Your task to perform on an android device: Clear all items from cart on walmart.com. Search for "logitech g933" on walmart.com, select the first entry, and add it to the cart. Image 0: 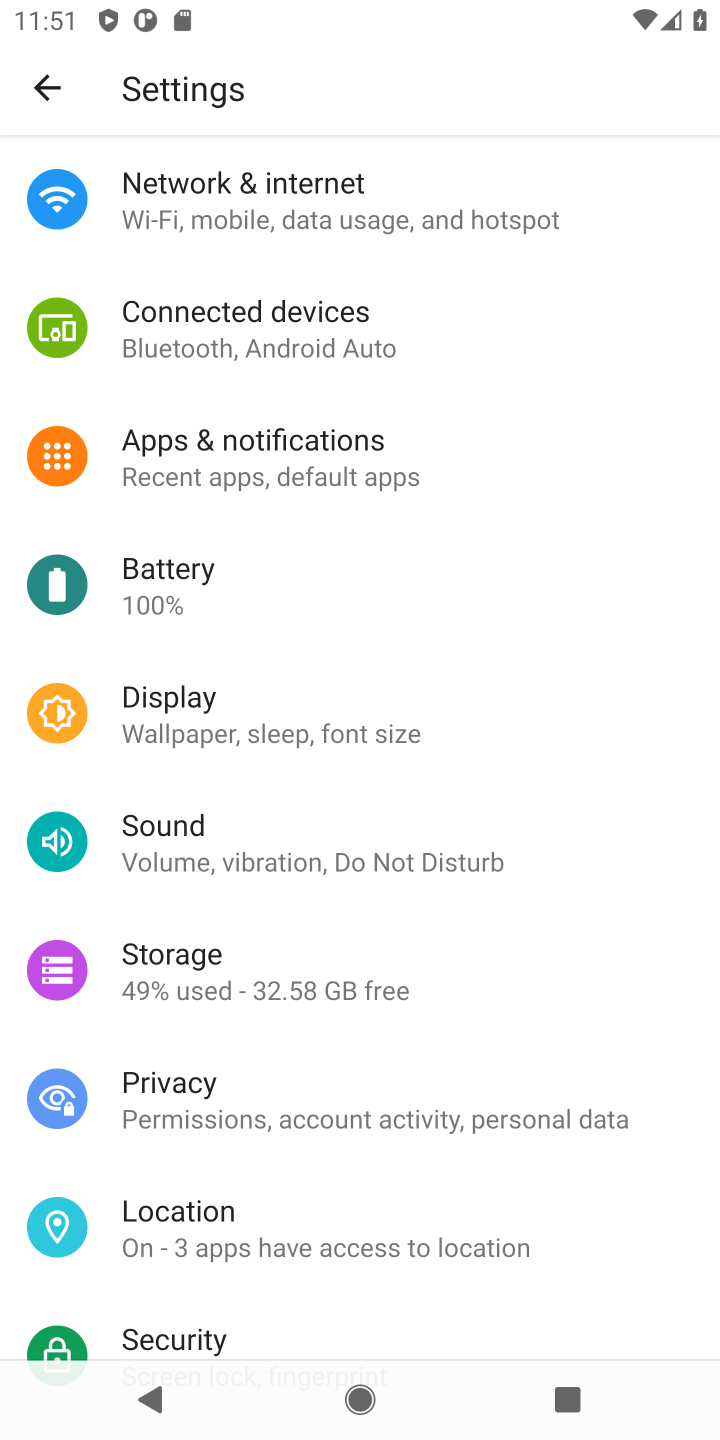
Step 0: press home button
Your task to perform on an android device: Clear all items from cart on walmart.com. Search for "logitech g933" on walmart.com, select the first entry, and add it to the cart. Image 1: 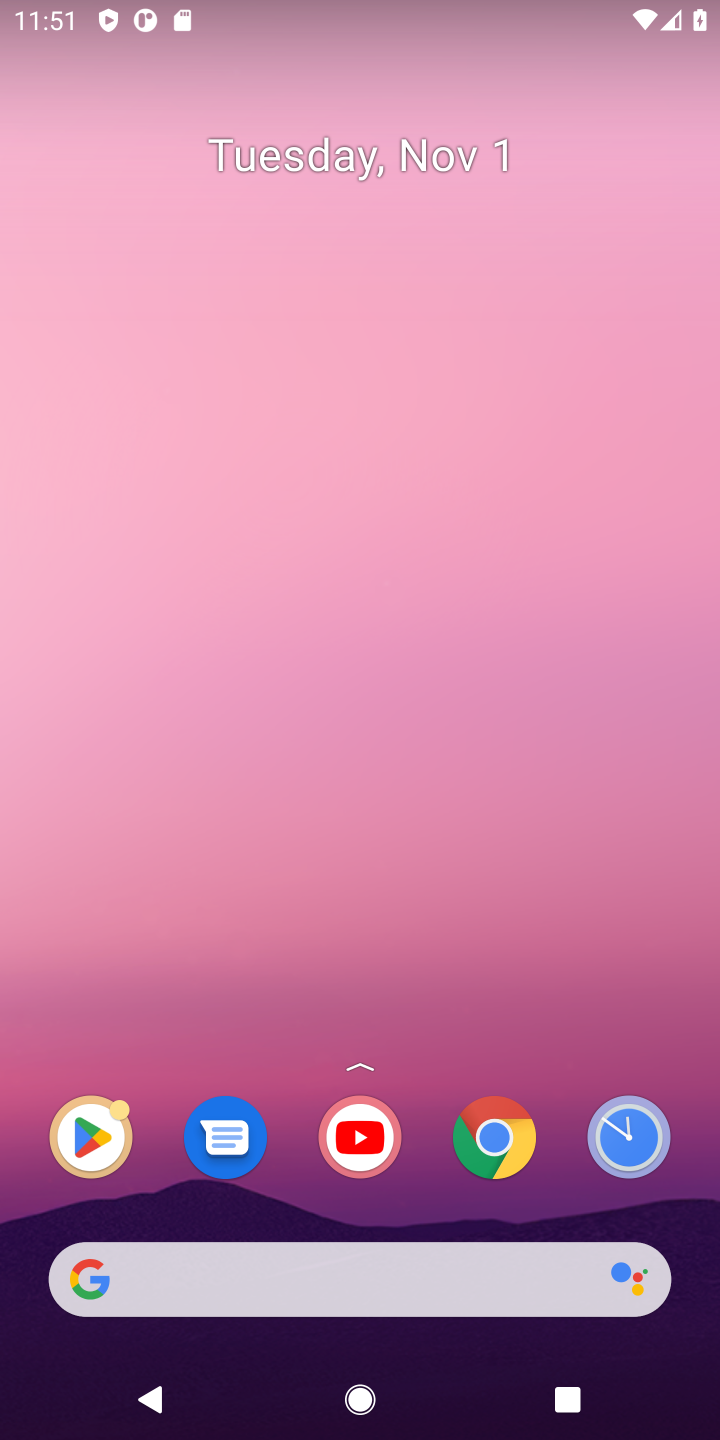
Step 1: click (340, 1227)
Your task to perform on an android device: Clear all items from cart on walmart.com. Search for "logitech g933" on walmart.com, select the first entry, and add it to the cart. Image 2: 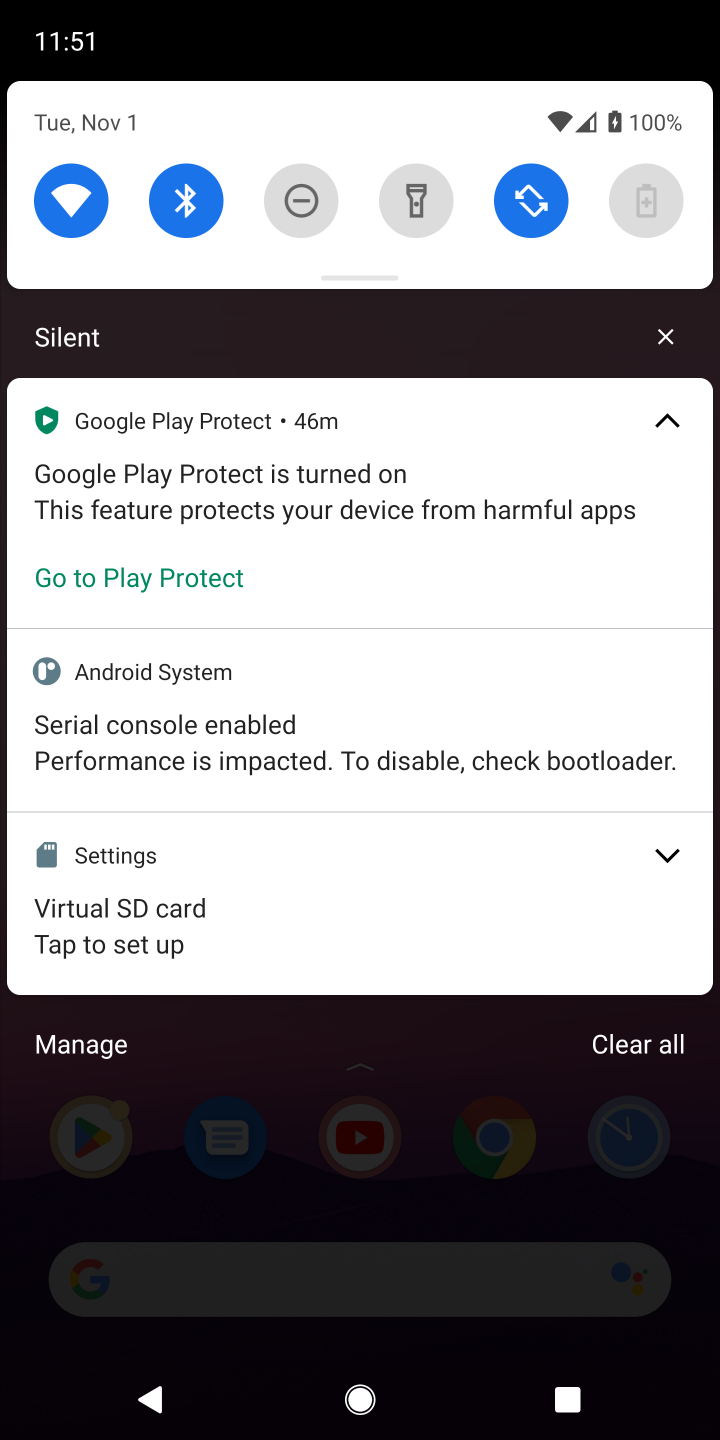
Step 2: click (669, 350)
Your task to perform on an android device: Clear all items from cart on walmart.com. Search for "logitech g933" on walmart.com, select the first entry, and add it to the cart. Image 3: 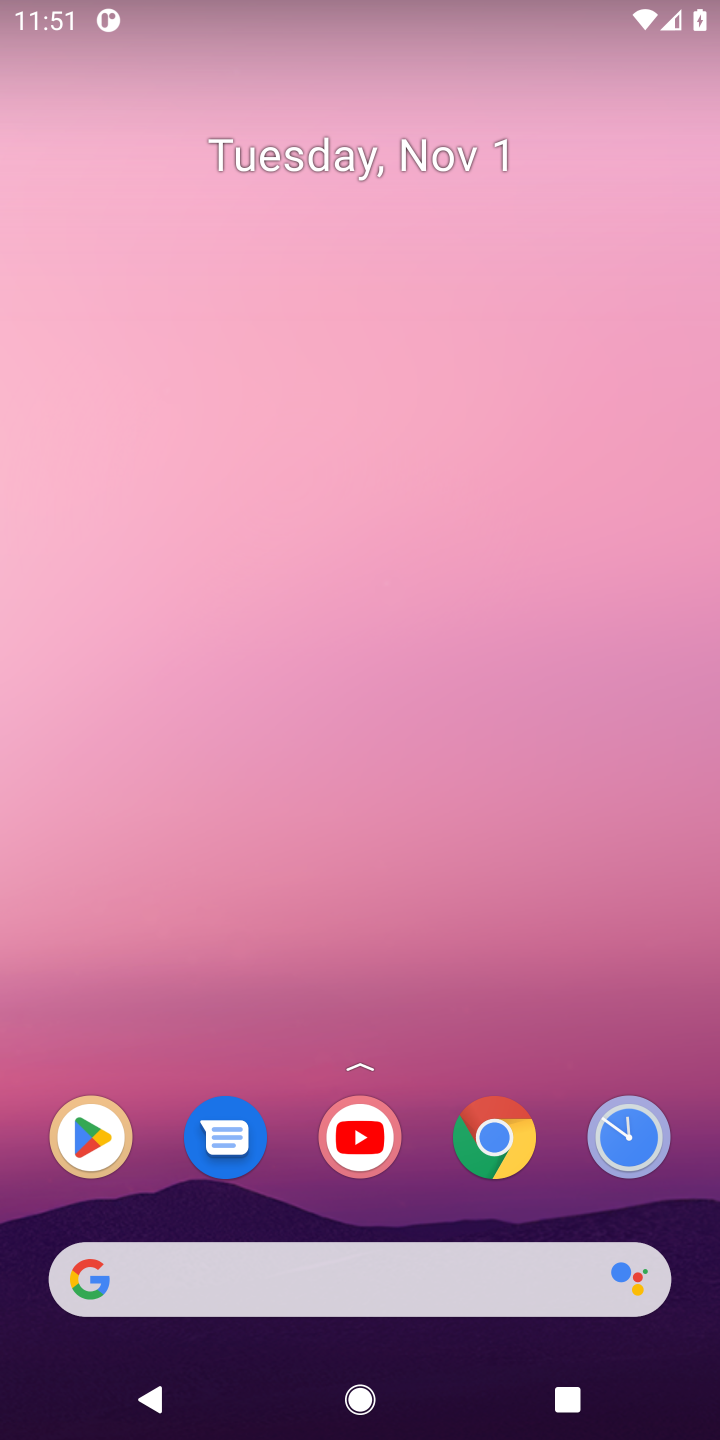
Step 3: click (342, 1263)
Your task to perform on an android device: Clear all items from cart on walmart.com. Search for "logitech g933" on walmart.com, select the first entry, and add it to the cart. Image 4: 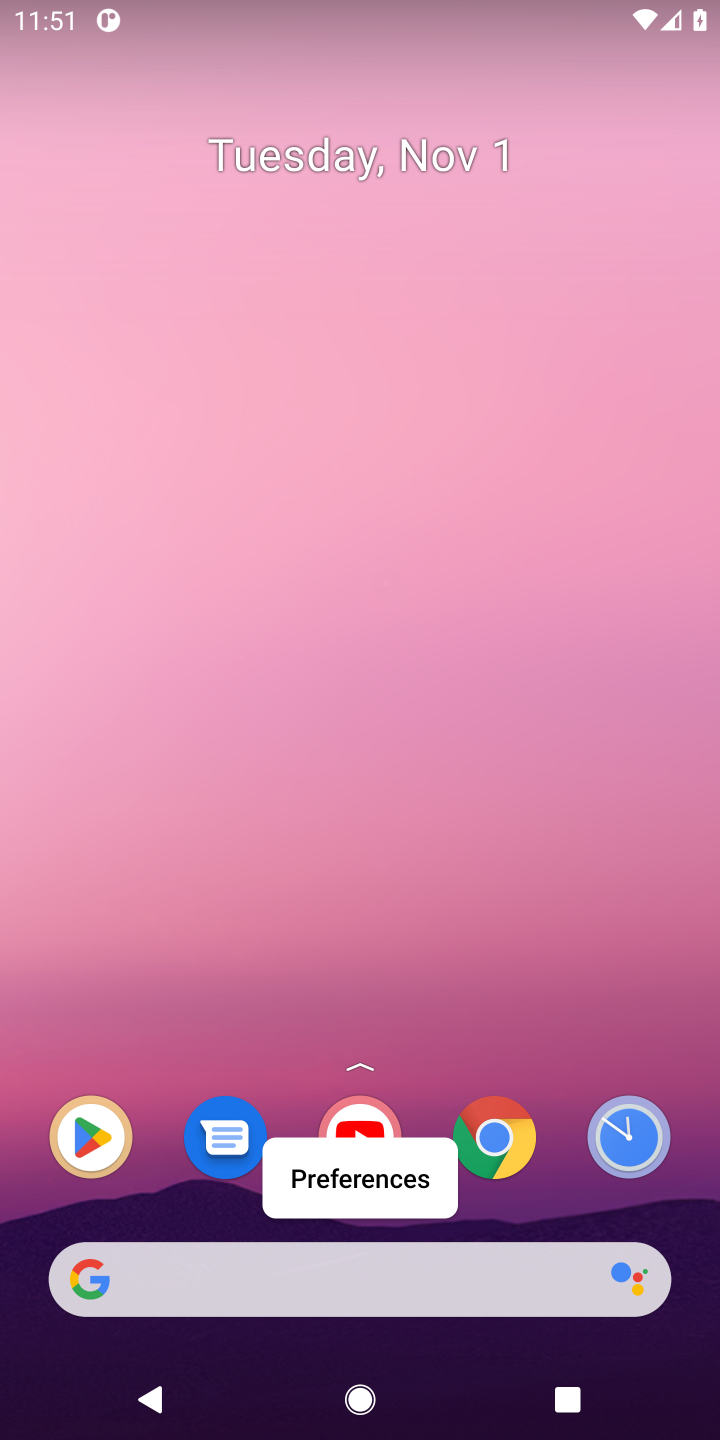
Step 4: click (342, 1263)
Your task to perform on an android device: Clear all items from cart on walmart.com. Search for "logitech g933" on walmart.com, select the first entry, and add it to the cart. Image 5: 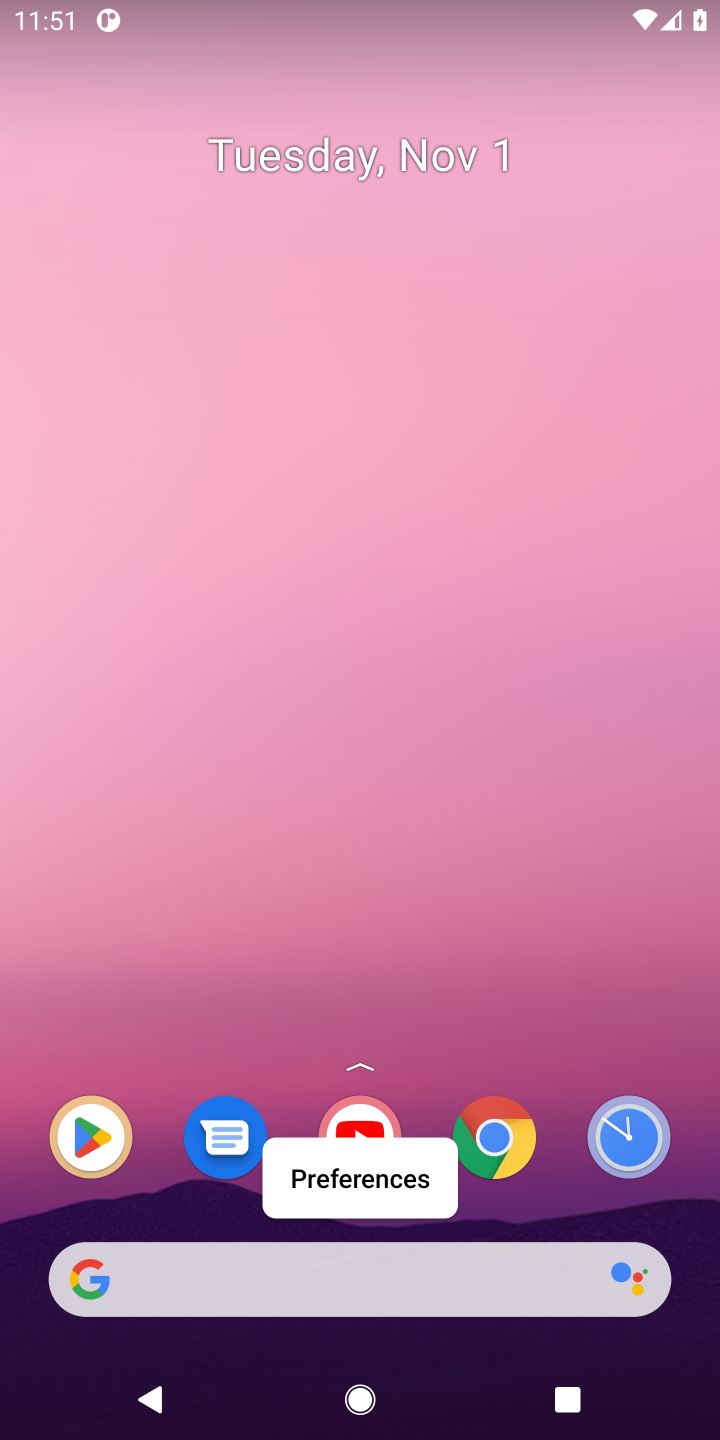
Step 5: click (342, 1263)
Your task to perform on an android device: Clear all items from cart on walmart.com. Search for "logitech g933" on walmart.com, select the first entry, and add it to the cart. Image 6: 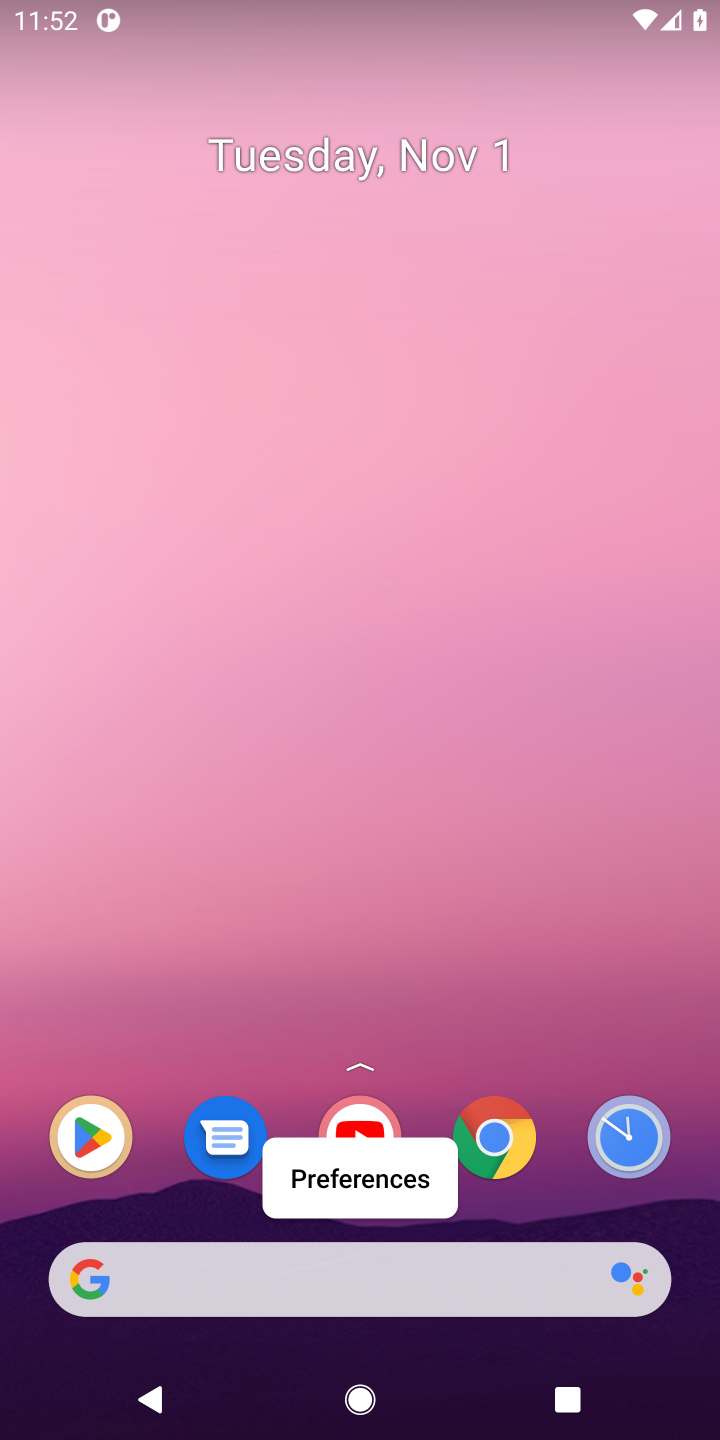
Step 6: click (347, 1286)
Your task to perform on an android device: Clear all items from cart on walmart.com. Search for "logitech g933" on walmart.com, select the first entry, and add it to the cart. Image 7: 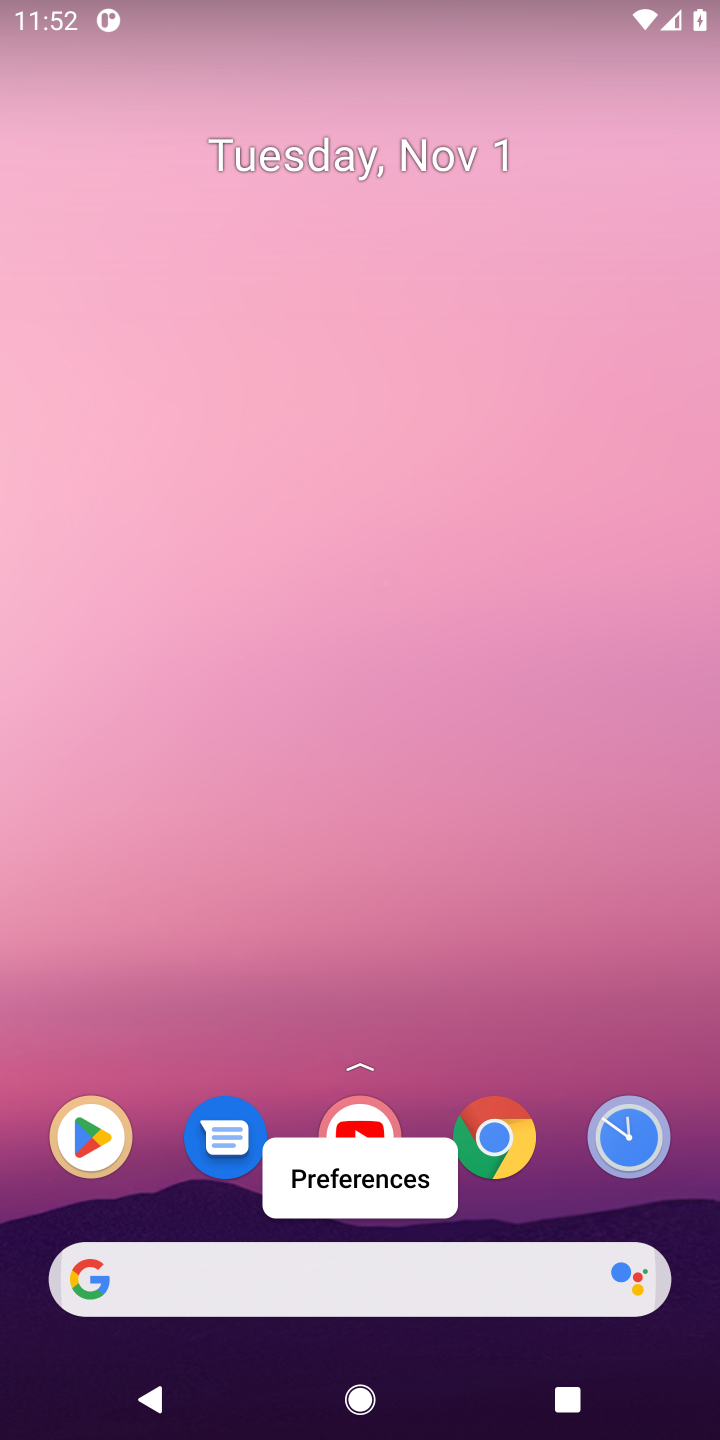
Step 7: click (341, 1296)
Your task to perform on an android device: Clear all items from cart on walmart.com. Search for "logitech g933" on walmart.com, select the first entry, and add it to the cart. Image 8: 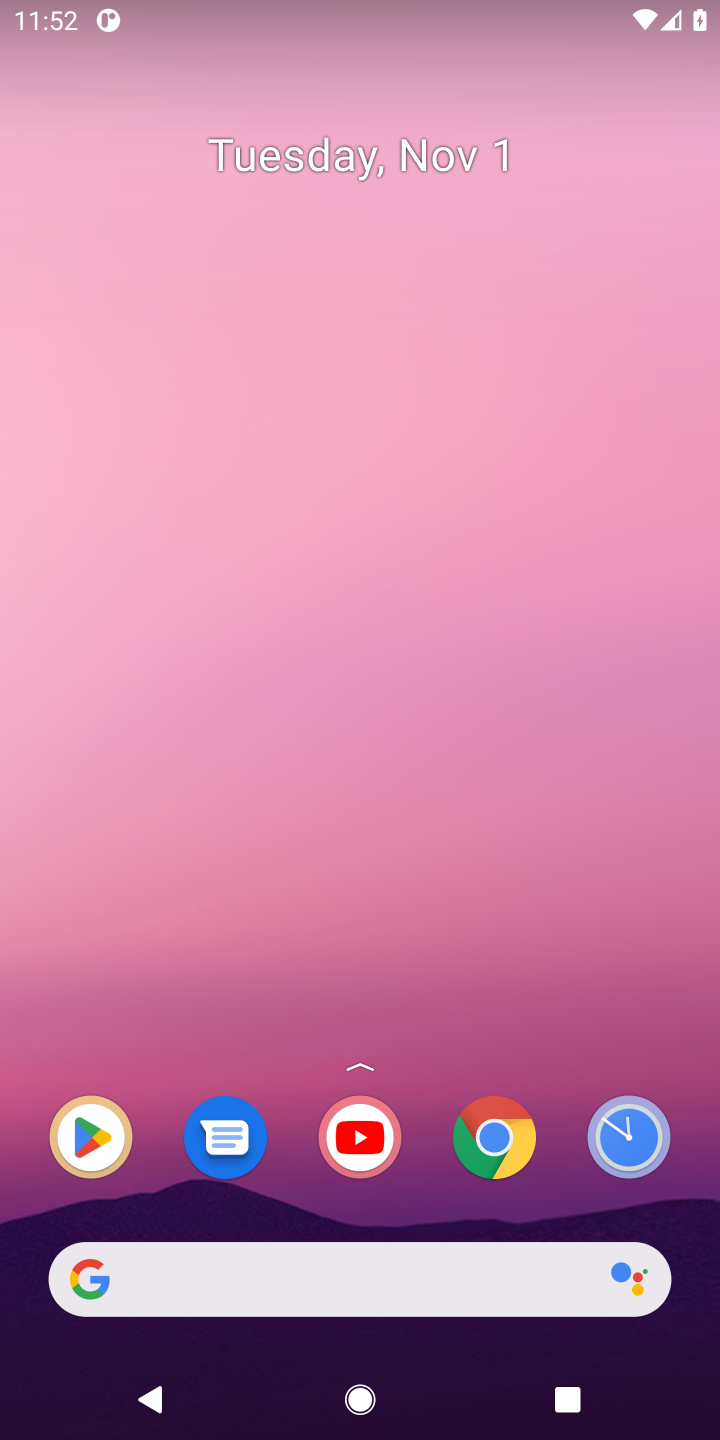
Step 8: click (328, 1293)
Your task to perform on an android device: Clear all items from cart on walmart.com. Search for "logitech g933" on walmart.com, select the first entry, and add it to the cart. Image 9: 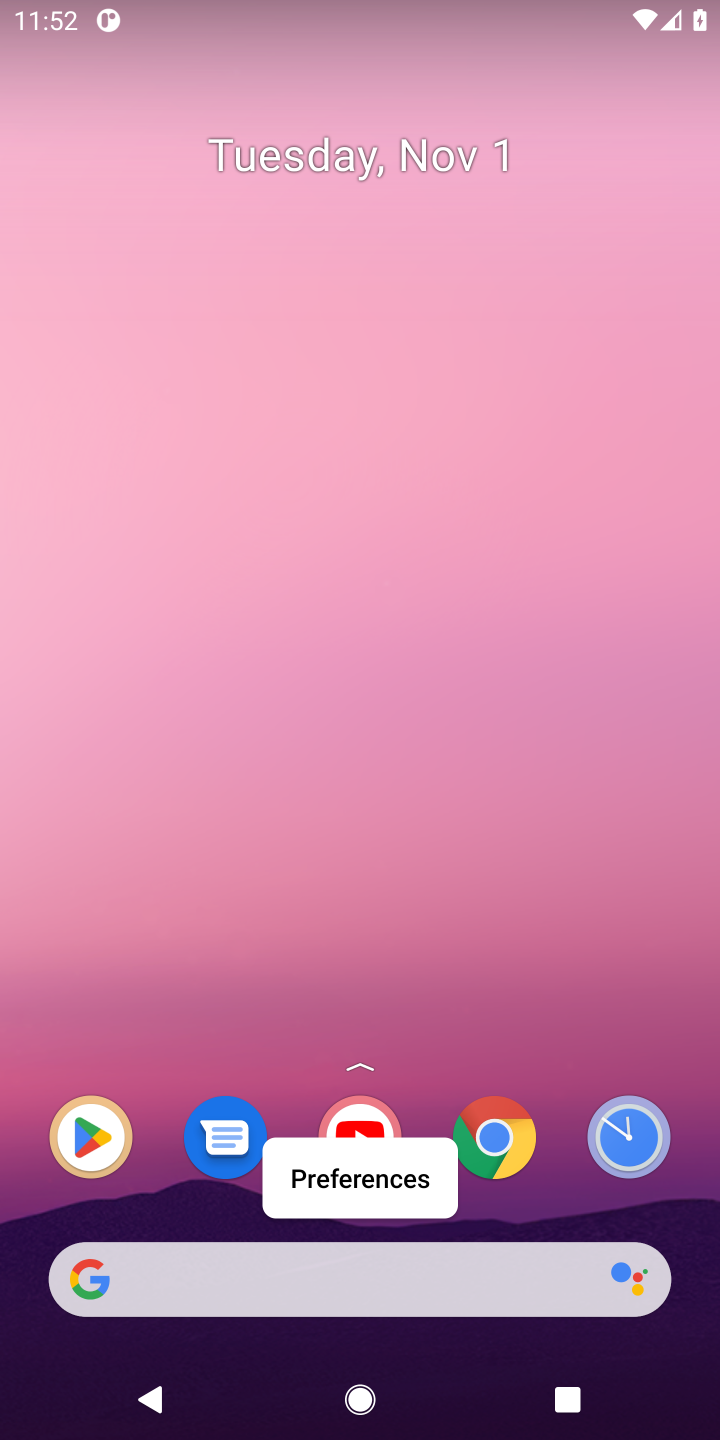
Step 9: click (485, 724)
Your task to perform on an android device: Clear all items from cart on walmart.com. Search for "logitech g933" on walmart.com, select the first entry, and add it to the cart. Image 10: 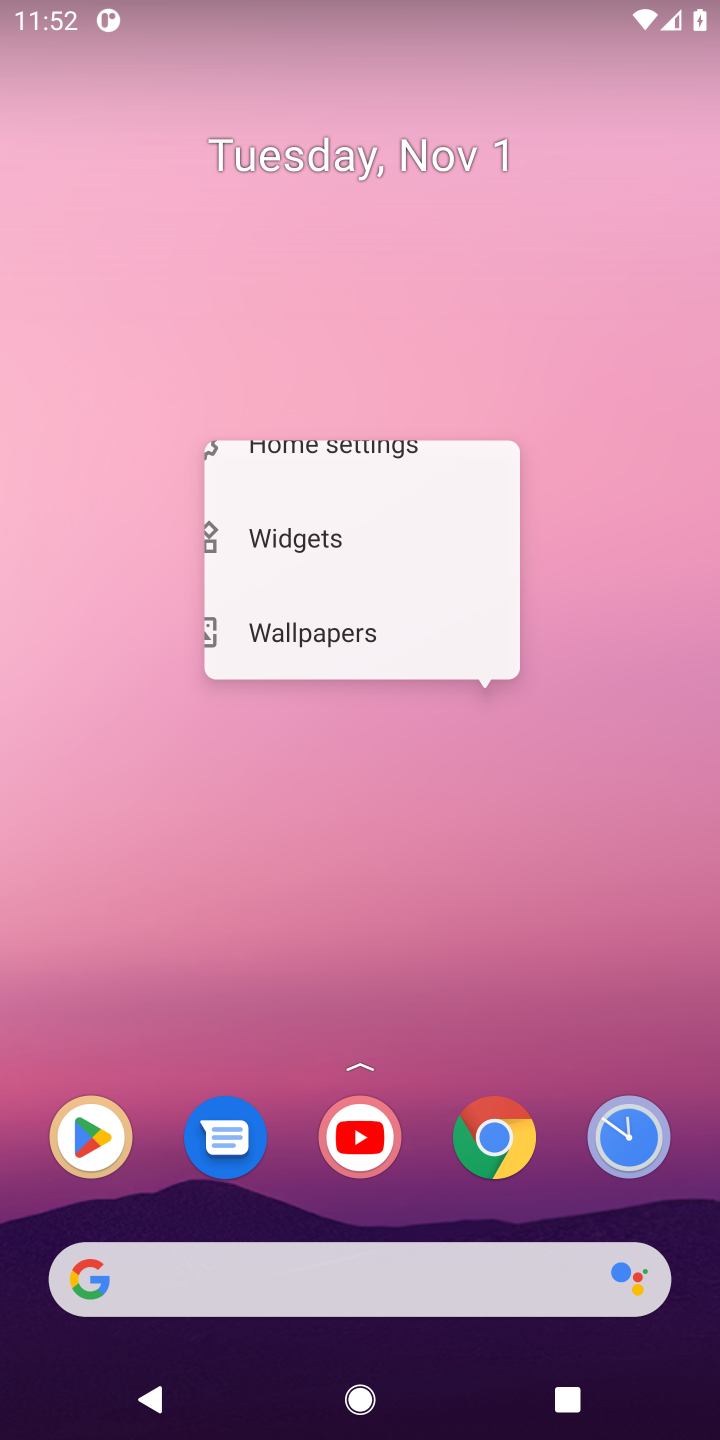
Step 10: click (512, 1070)
Your task to perform on an android device: Clear all items from cart on walmart.com. Search for "logitech g933" on walmart.com, select the first entry, and add it to the cart. Image 11: 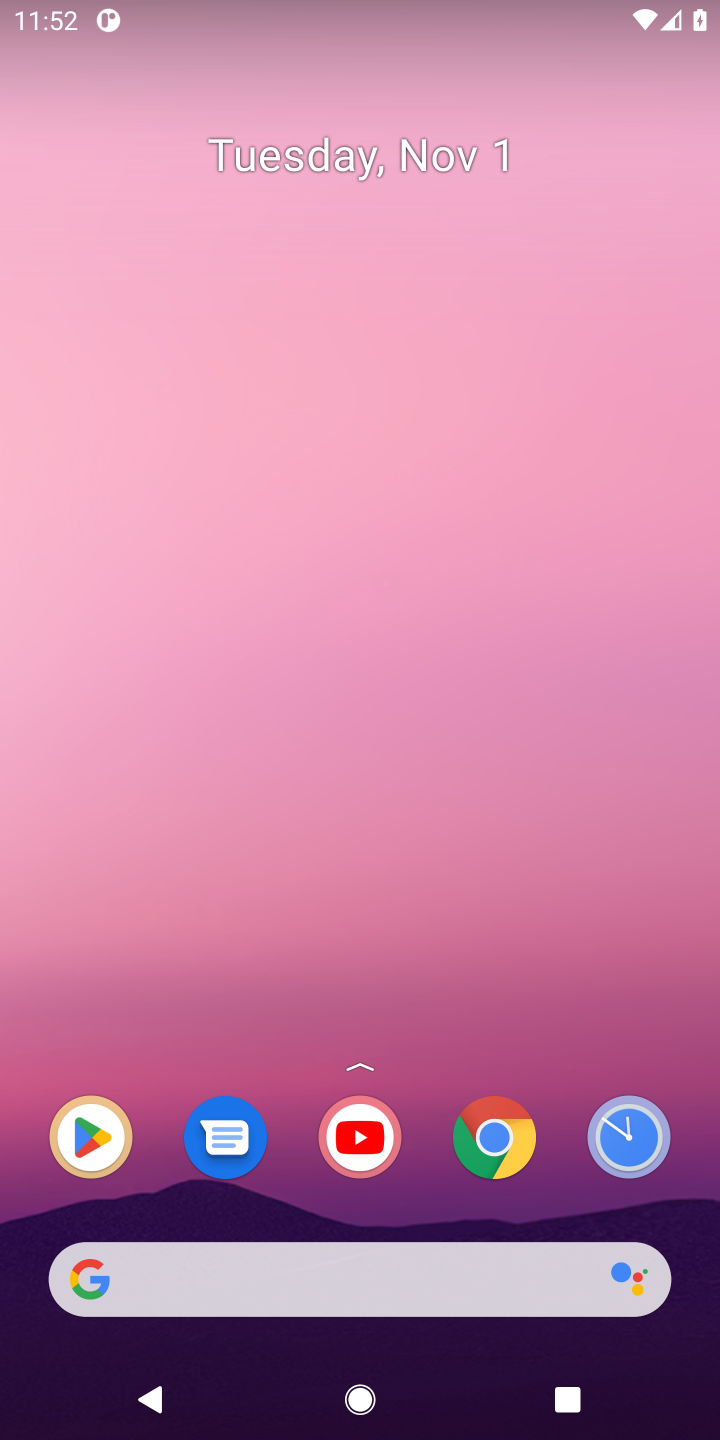
Step 11: click (361, 1273)
Your task to perform on an android device: Clear all items from cart on walmart.com. Search for "logitech g933" on walmart.com, select the first entry, and add it to the cart. Image 12: 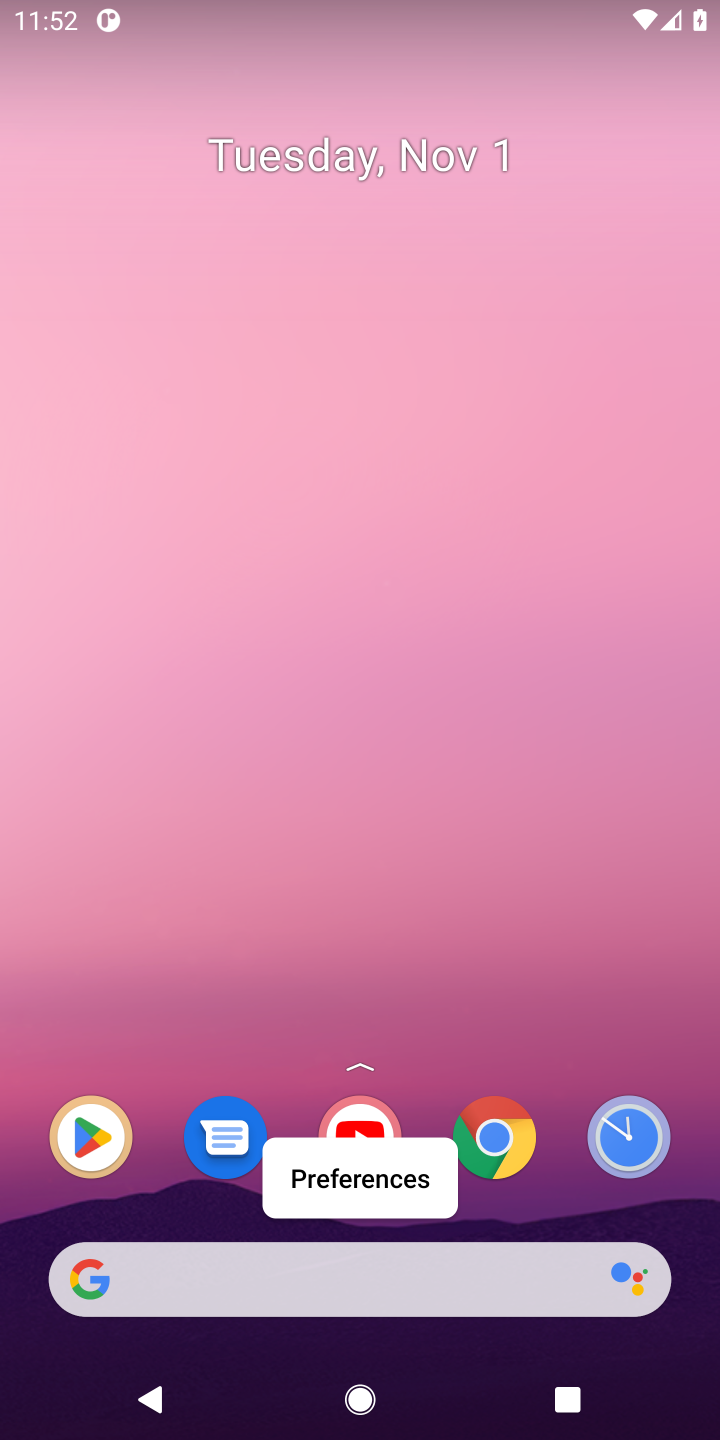
Step 12: click (346, 1265)
Your task to perform on an android device: Clear all items from cart on walmart.com. Search for "logitech g933" on walmart.com, select the first entry, and add it to the cart. Image 13: 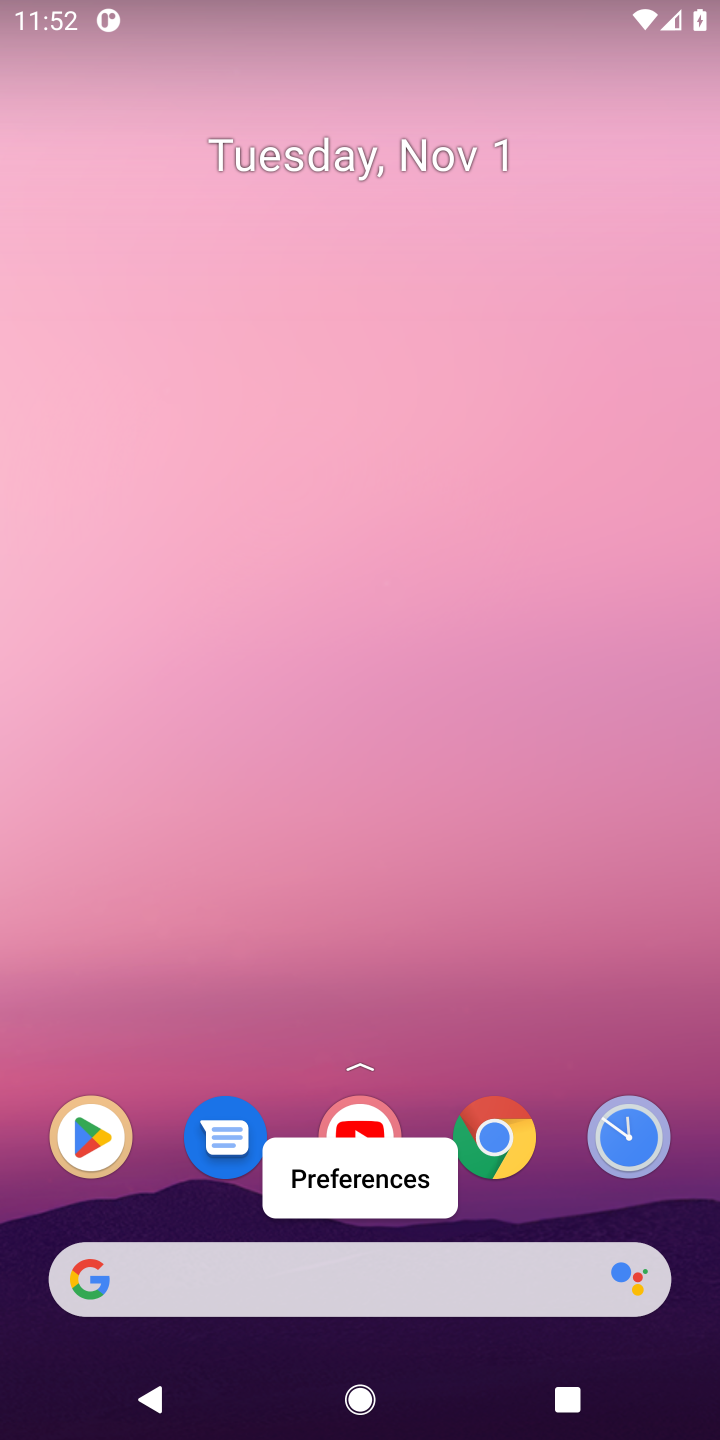
Step 13: click (355, 1273)
Your task to perform on an android device: Clear all items from cart on walmart.com. Search for "logitech g933" on walmart.com, select the first entry, and add it to the cart. Image 14: 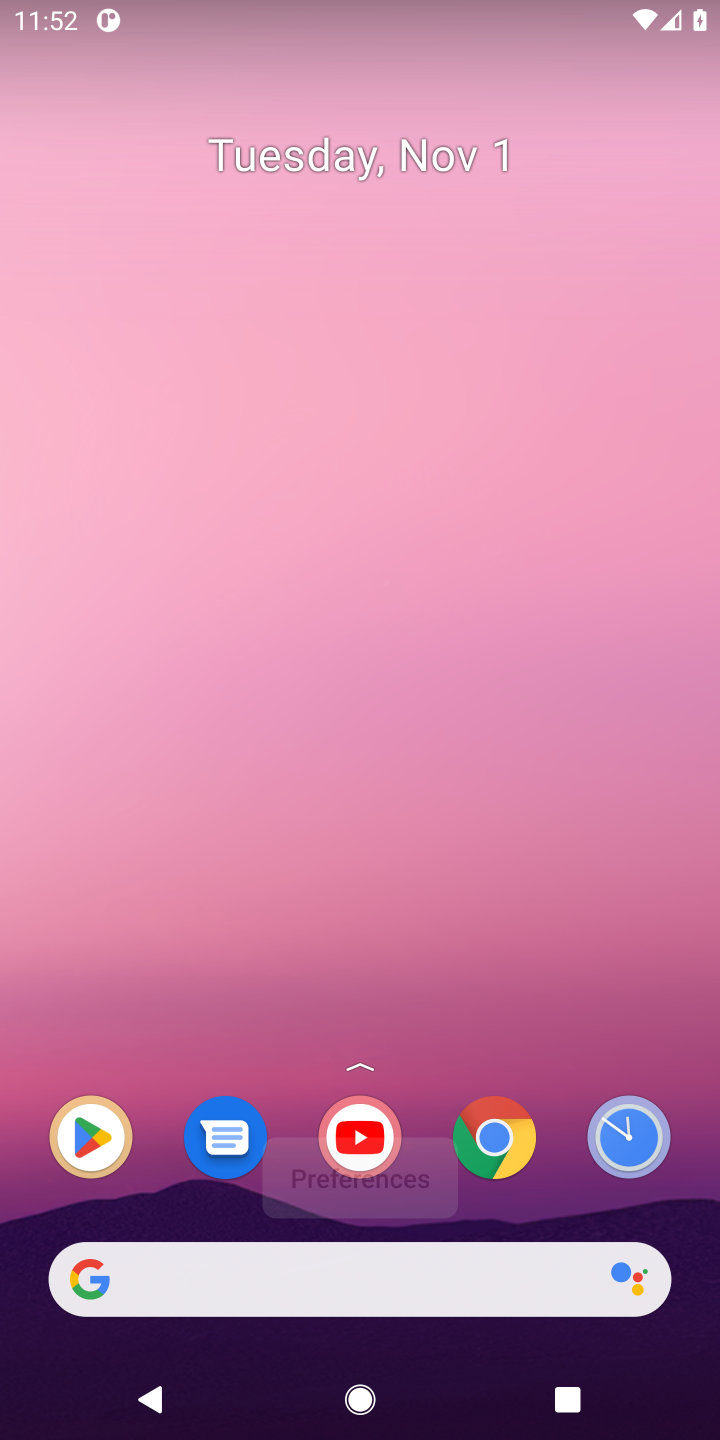
Step 14: click (281, 1293)
Your task to perform on an android device: Clear all items from cart on walmart.com. Search for "logitech g933" on walmart.com, select the first entry, and add it to the cart. Image 15: 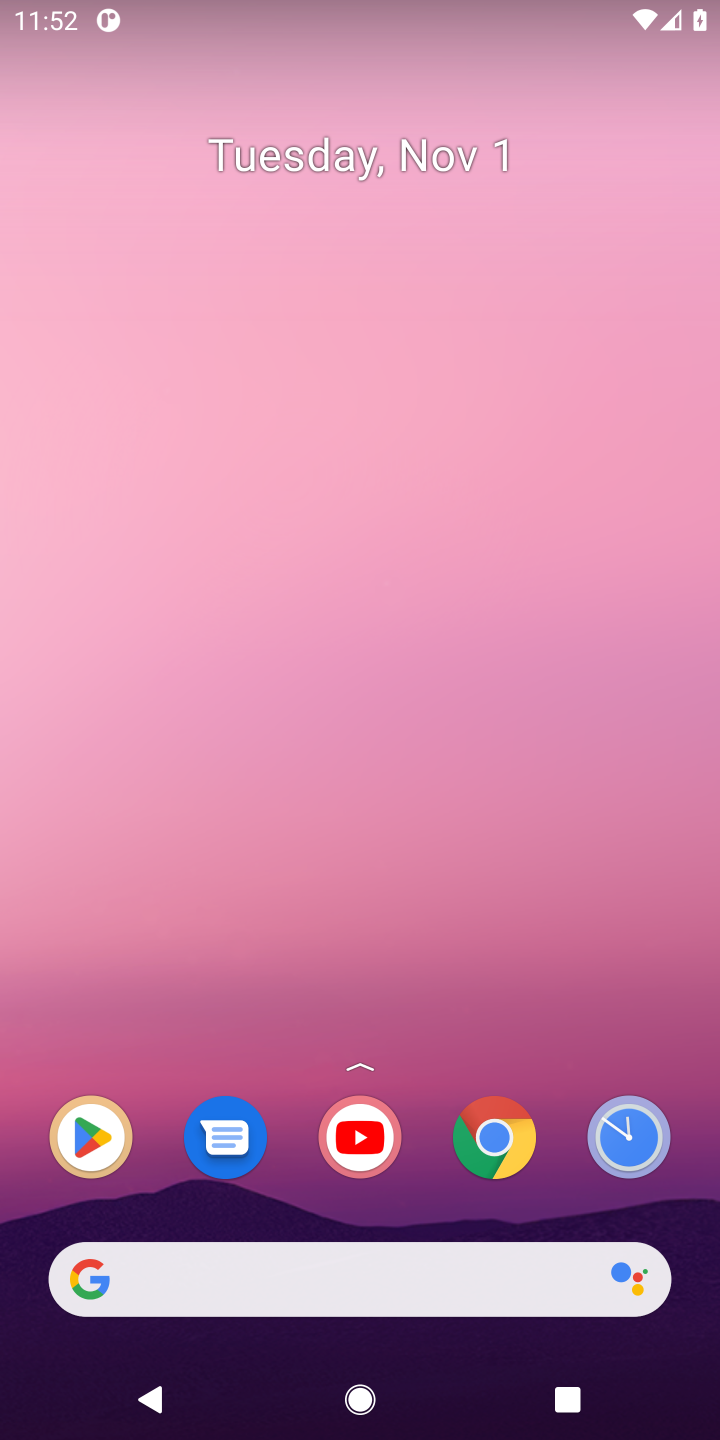
Step 15: click (216, 1289)
Your task to perform on an android device: Clear all items from cart on walmart.com. Search for "logitech g933" on walmart.com, select the first entry, and add it to the cart. Image 16: 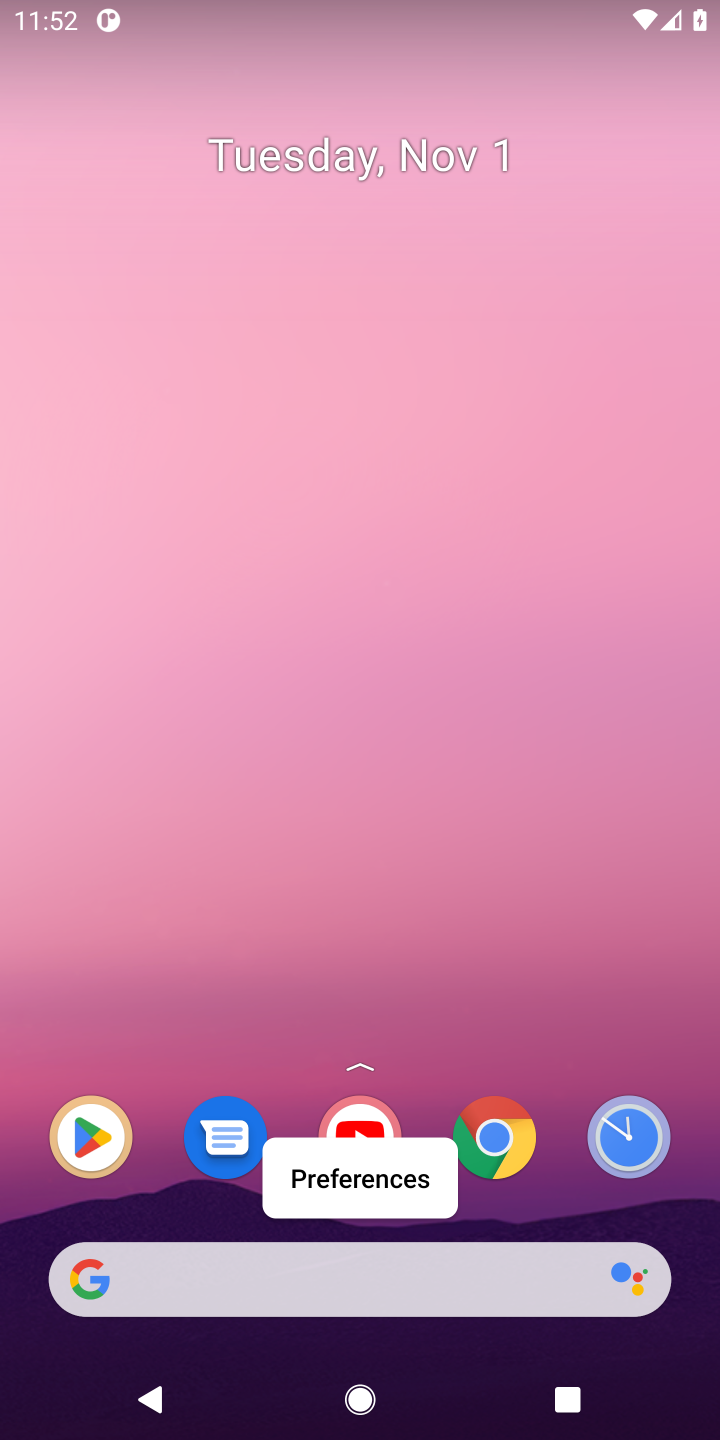
Step 16: click (475, 1144)
Your task to perform on an android device: Clear all items from cart on walmart.com. Search for "logitech g933" on walmart.com, select the first entry, and add it to the cart. Image 17: 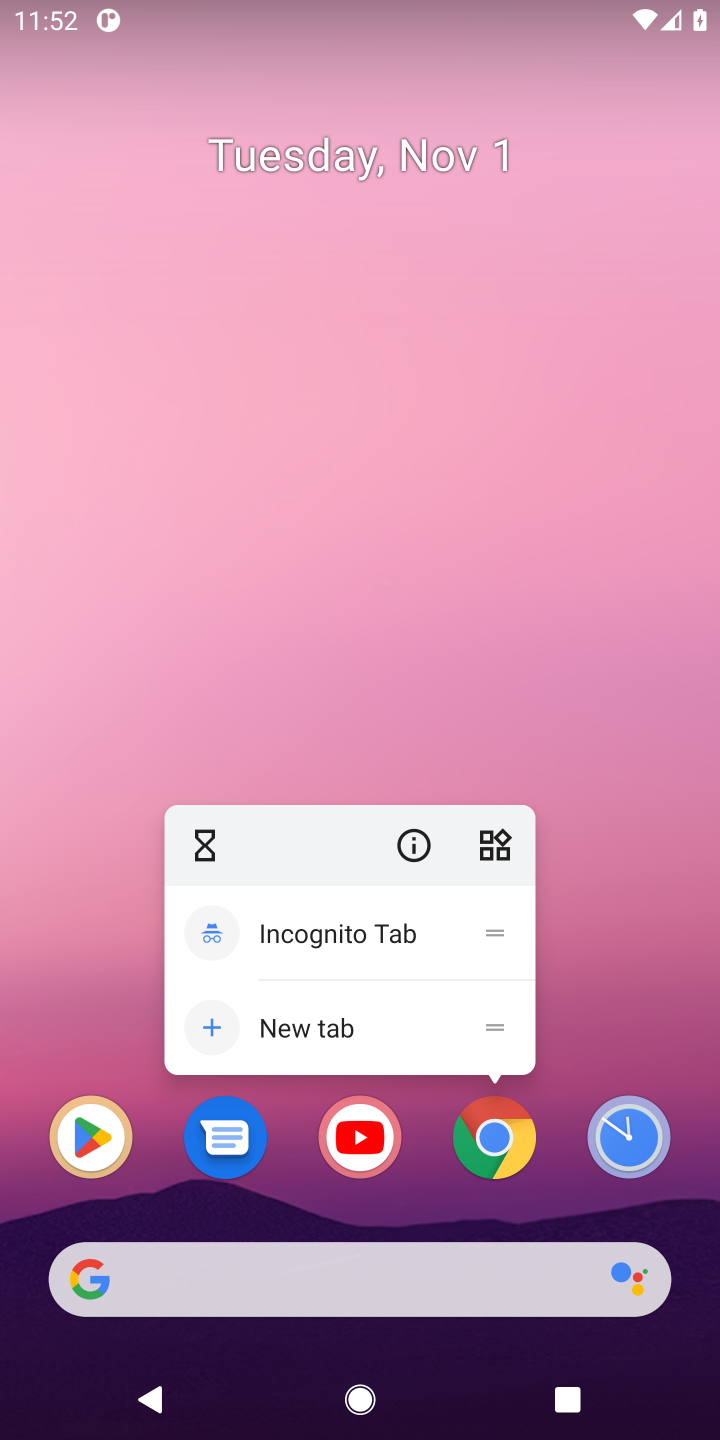
Step 17: click (475, 1144)
Your task to perform on an android device: Clear all items from cart on walmart.com. Search for "logitech g933" on walmart.com, select the first entry, and add it to the cart. Image 18: 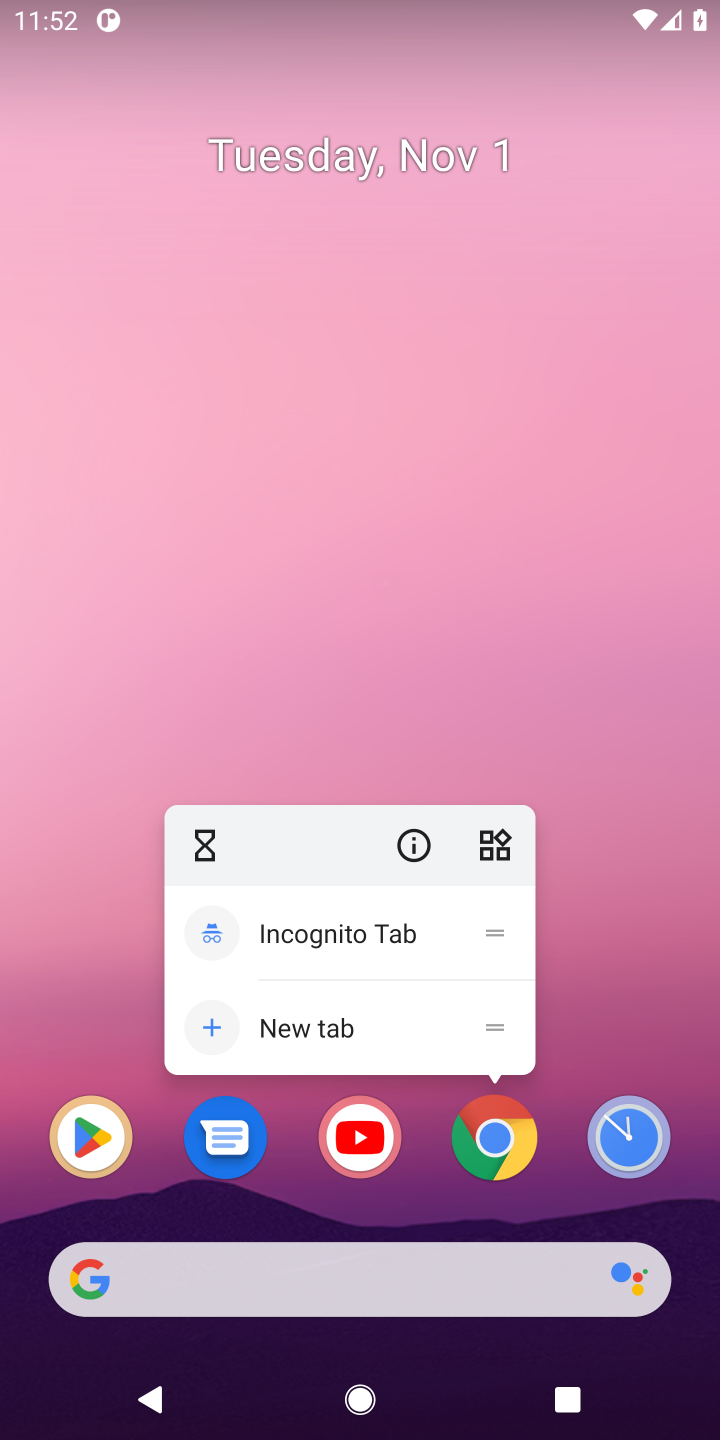
Step 18: click (473, 1144)
Your task to perform on an android device: Clear all items from cart on walmart.com. Search for "logitech g933" on walmart.com, select the first entry, and add it to the cart. Image 19: 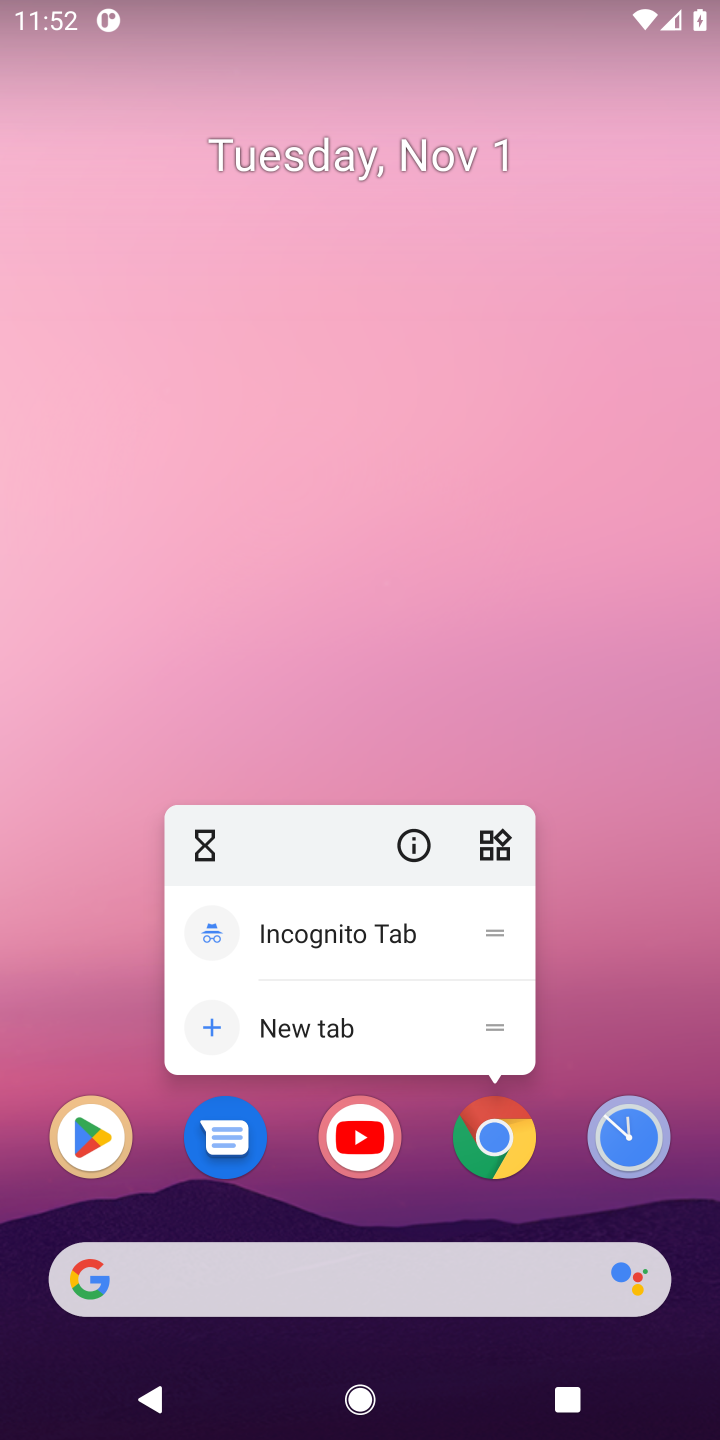
Step 19: click (468, 1149)
Your task to perform on an android device: Clear all items from cart on walmart.com. Search for "logitech g933" on walmart.com, select the first entry, and add it to the cart. Image 20: 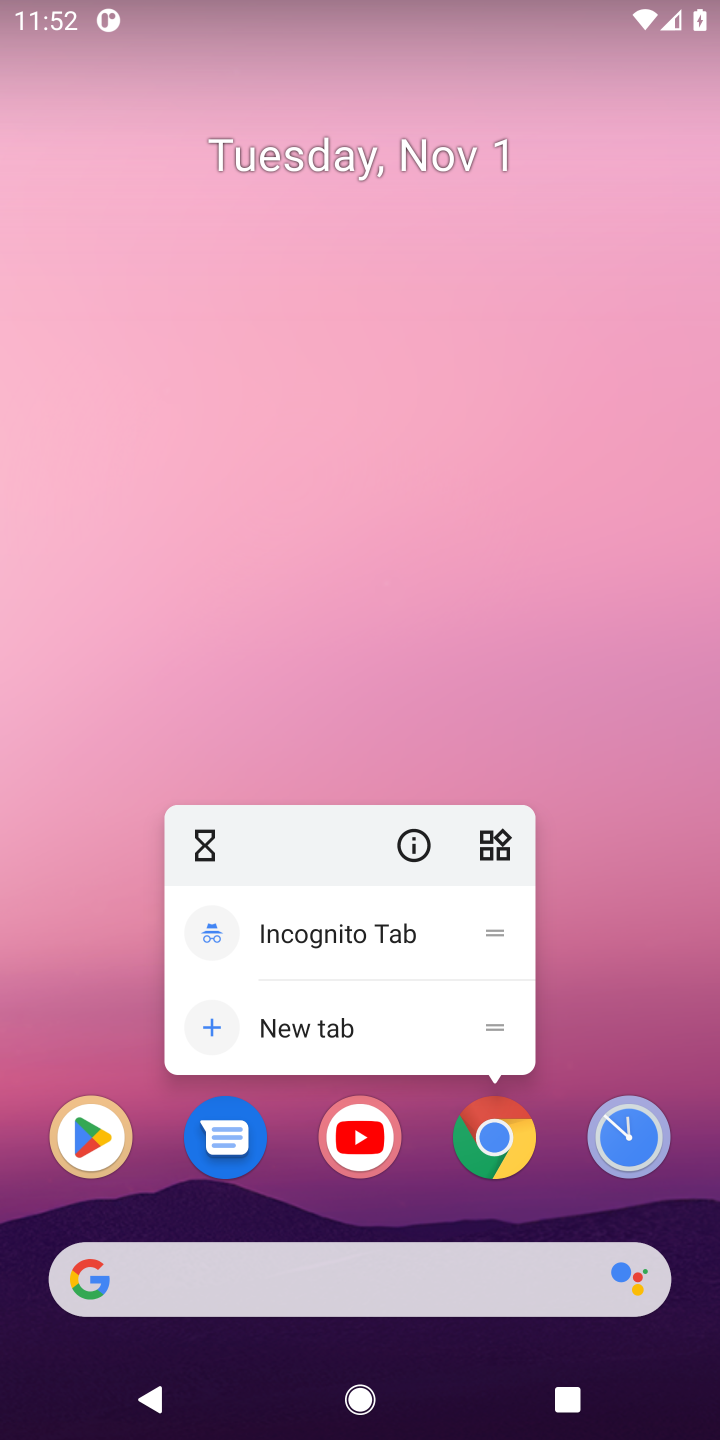
Step 20: click (628, 605)
Your task to perform on an android device: Clear all items from cart on walmart.com. Search for "logitech g933" on walmart.com, select the first entry, and add it to the cart. Image 21: 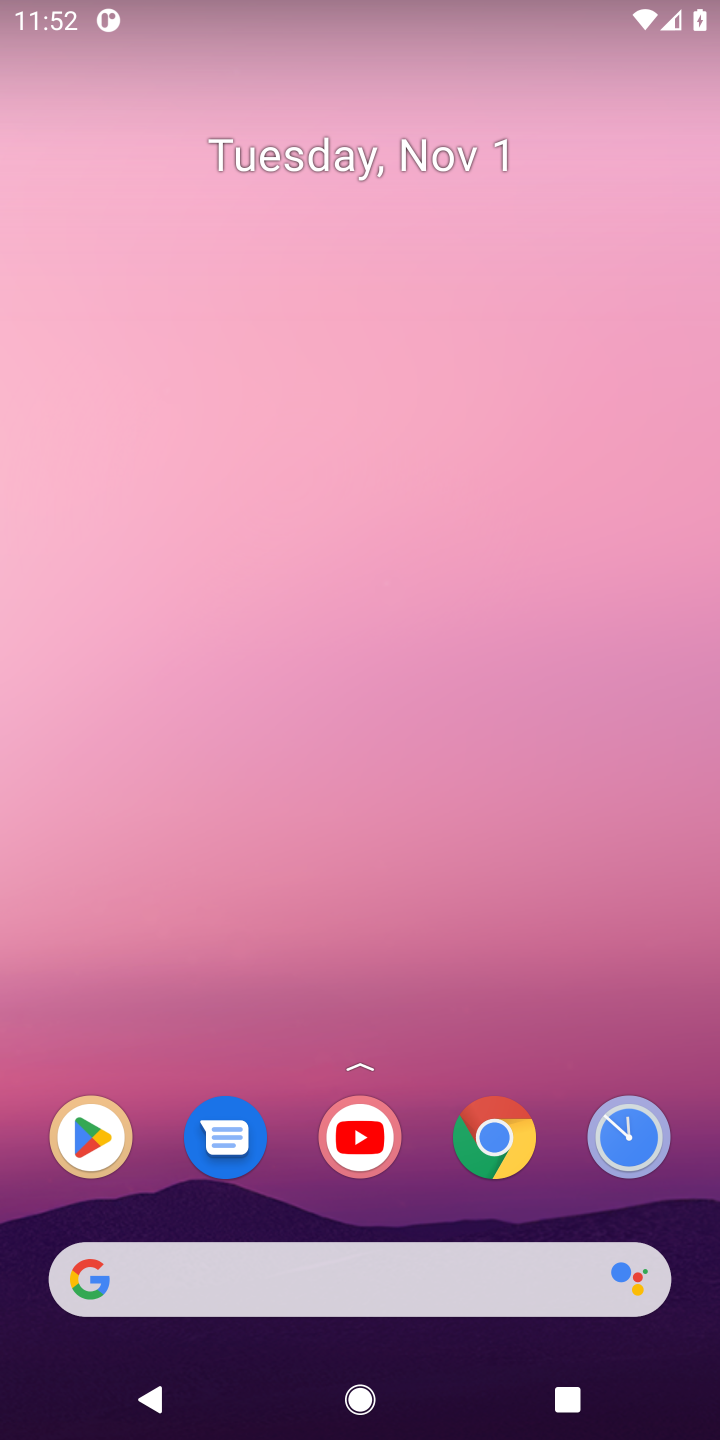
Step 21: click (528, 596)
Your task to perform on an android device: Clear all items from cart on walmart.com. Search for "logitech g933" on walmart.com, select the first entry, and add it to the cart. Image 22: 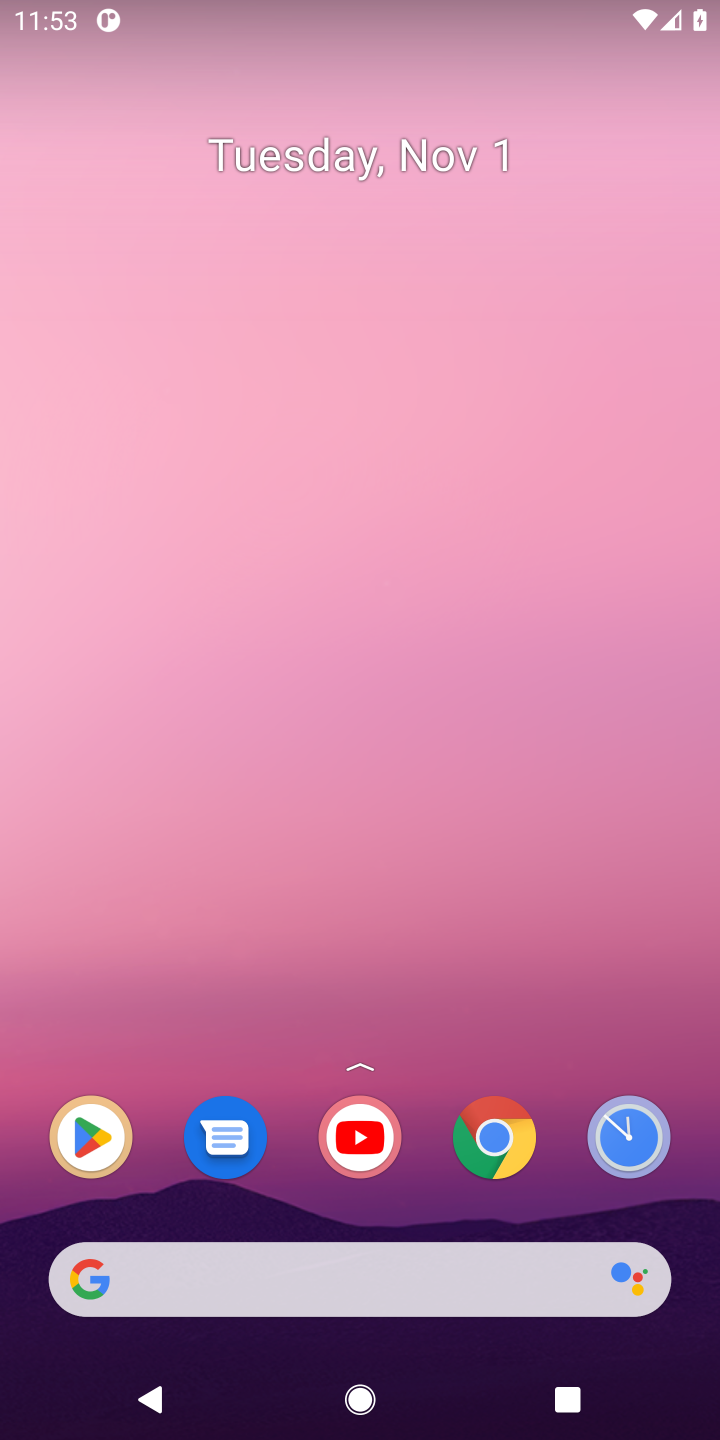
Step 22: click (481, 1136)
Your task to perform on an android device: Clear all items from cart on walmart.com. Search for "logitech g933" on walmart.com, select the first entry, and add it to the cart. Image 23: 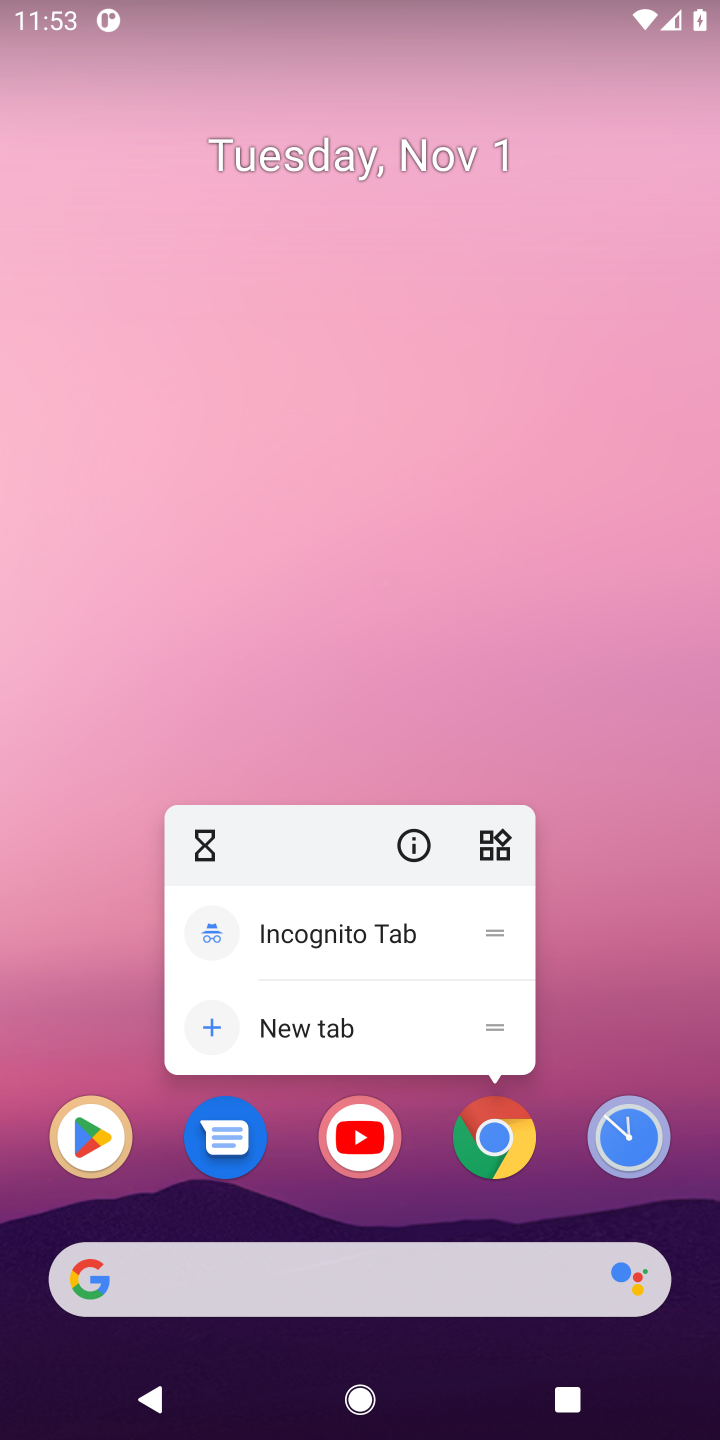
Step 23: click (606, 959)
Your task to perform on an android device: Clear all items from cart on walmart.com. Search for "logitech g933" on walmart.com, select the first entry, and add it to the cart. Image 24: 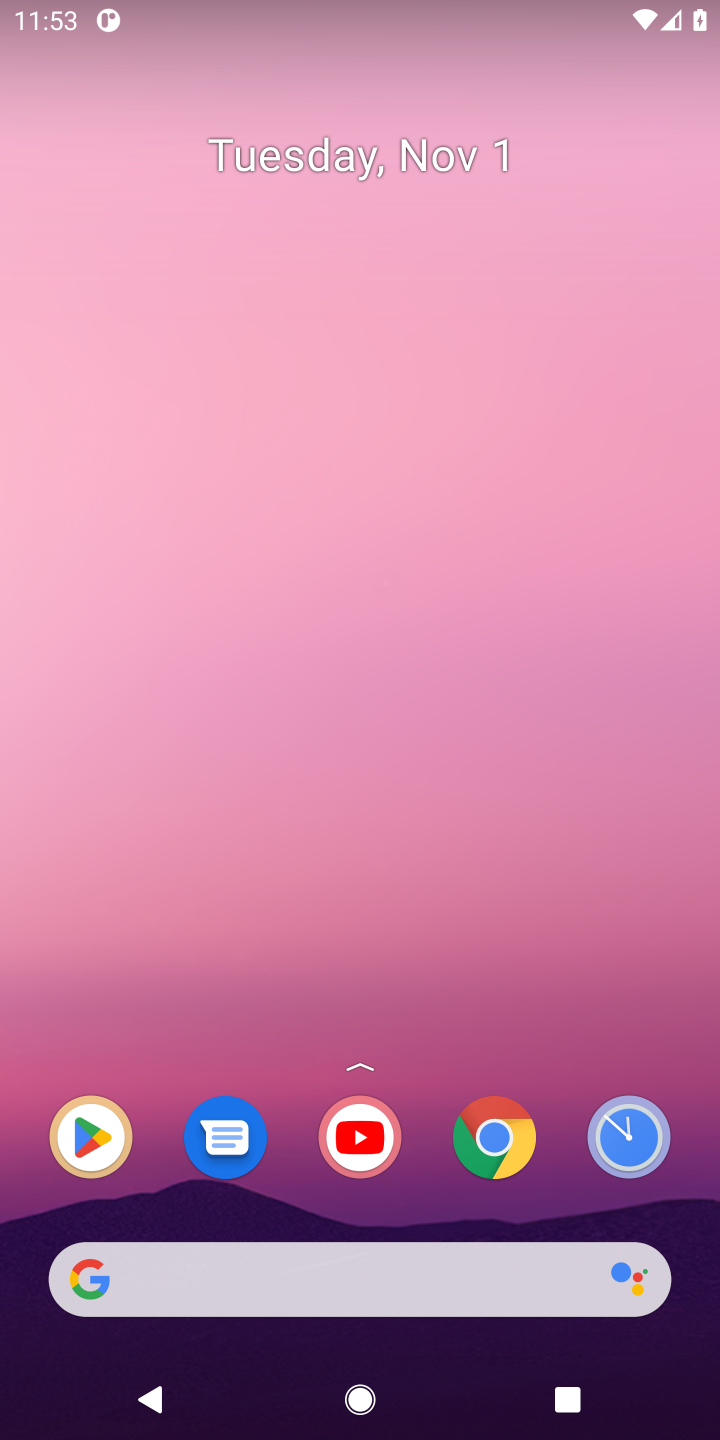
Step 24: click (388, 1275)
Your task to perform on an android device: Clear all items from cart on walmart.com. Search for "logitech g933" on walmart.com, select the first entry, and add it to the cart. Image 25: 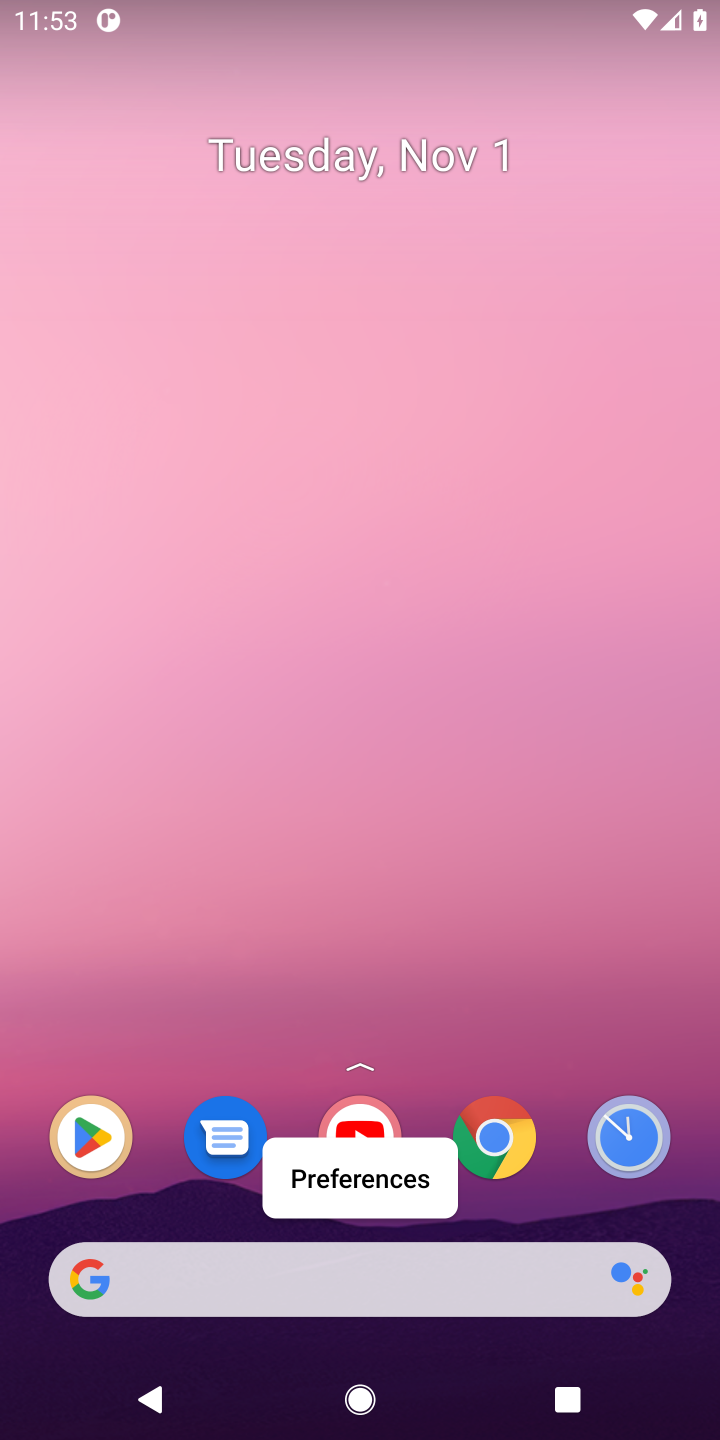
Step 25: click (388, 1275)
Your task to perform on an android device: Clear all items from cart on walmart.com. Search for "logitech g933" on walmart.com, select the first entry, and add it to the cart. Image 26: 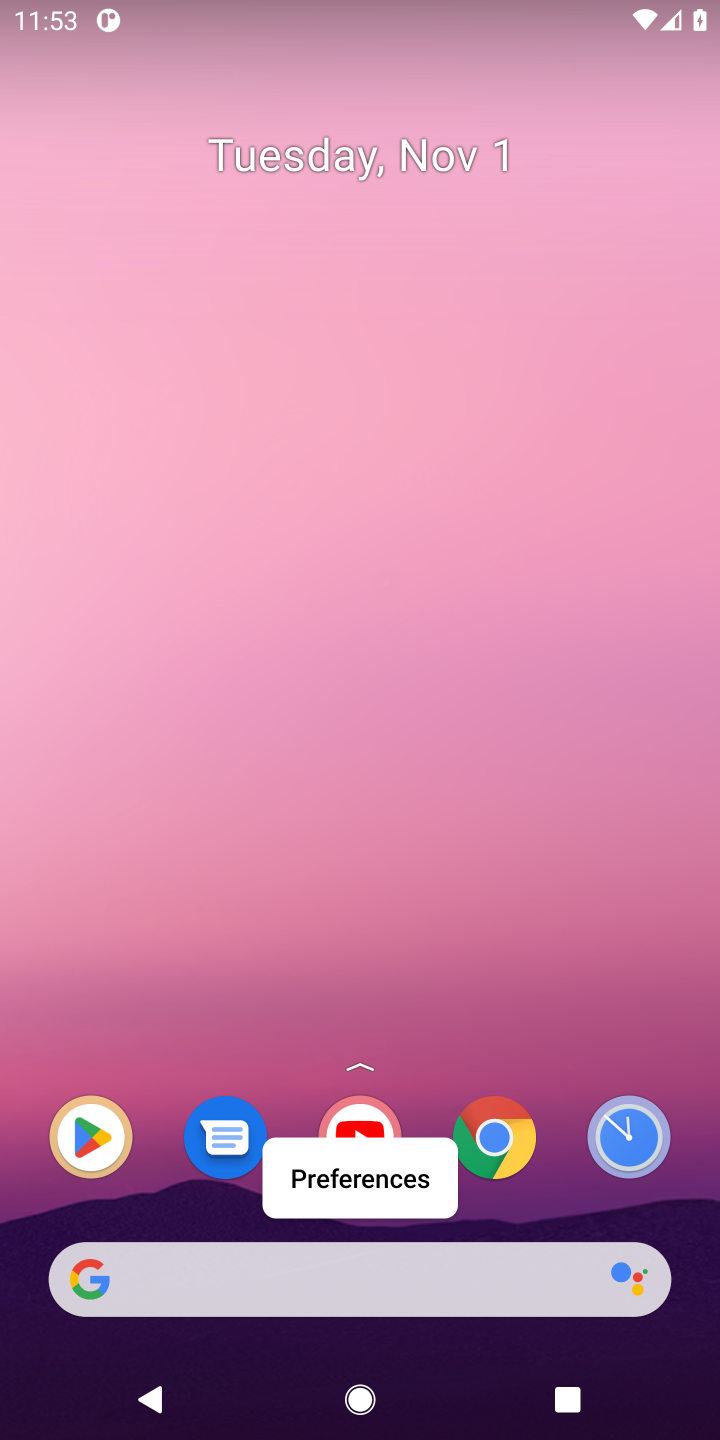
Step 26: click (374, 1287)
Your task to perform on an android device: Clear all items from cart on walmart.com. Search for "logitech g933" on walmart.com, select the first entry, and add it to the cart. Image 27: 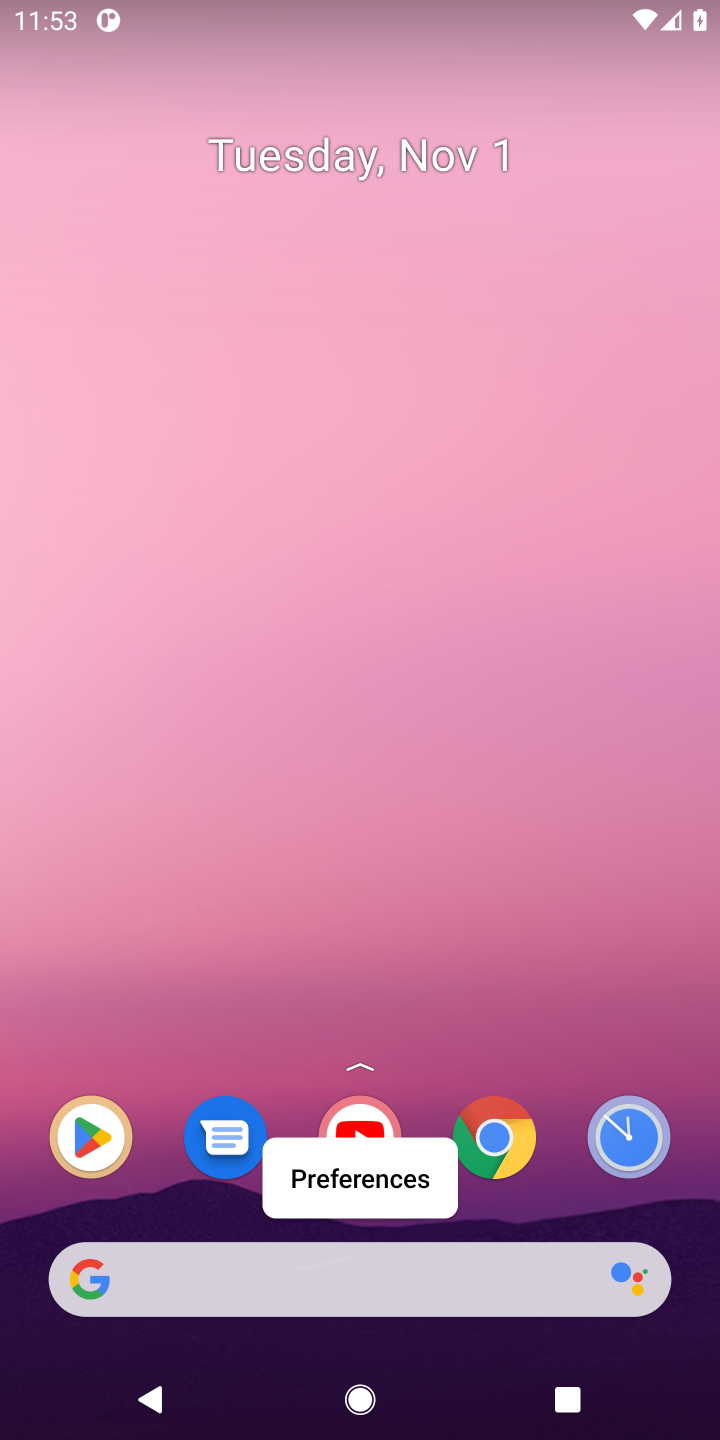
Step 27: click (374, 1287)
Your task to perform on an android device: Clear all items from cart on walmart.com. Search for "logitech g933" on walmart.com, select the first entry, and add it to the cart. Image 28: 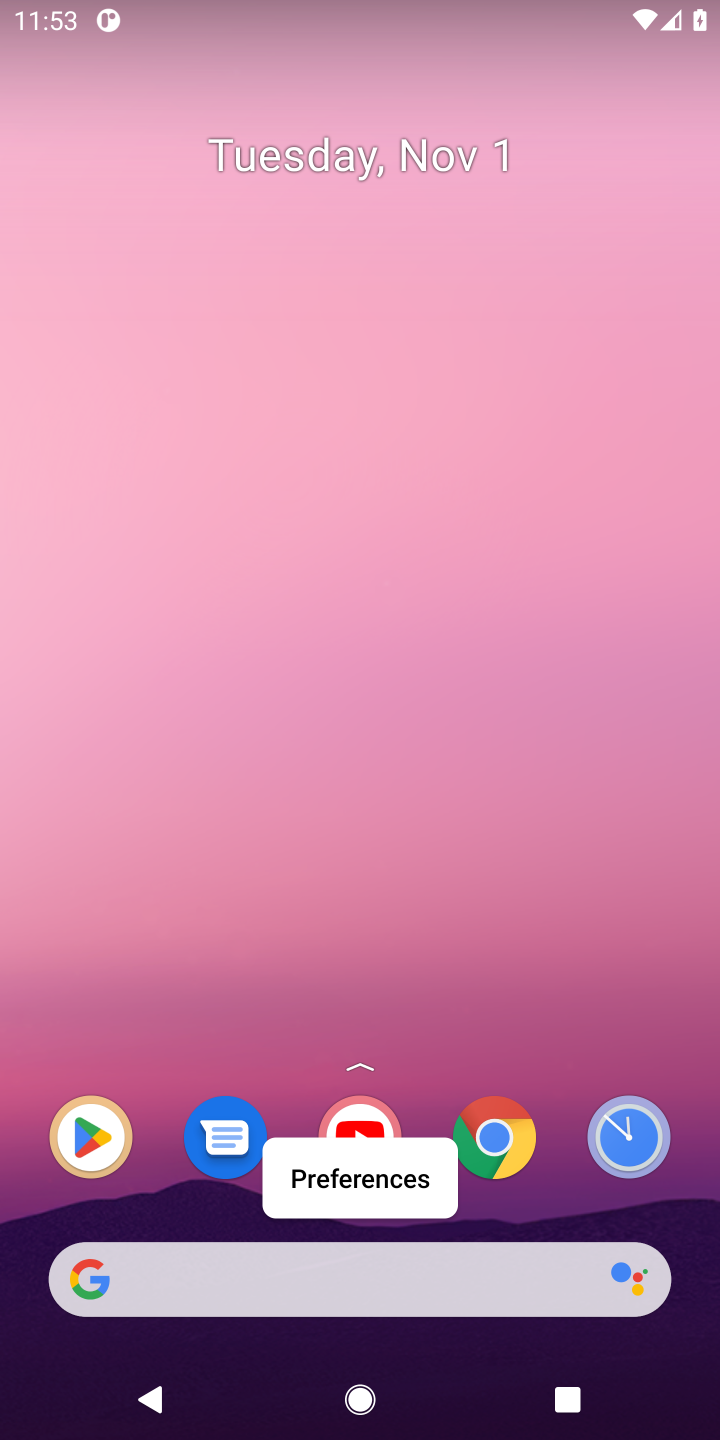
Step 28: click (374, 1287)
Your task to perform on an android device: Clear all items from cart on walmart.com. Search for "logitech g933" on walmart.com, select the first entry, and add it to the cart. Image 29: 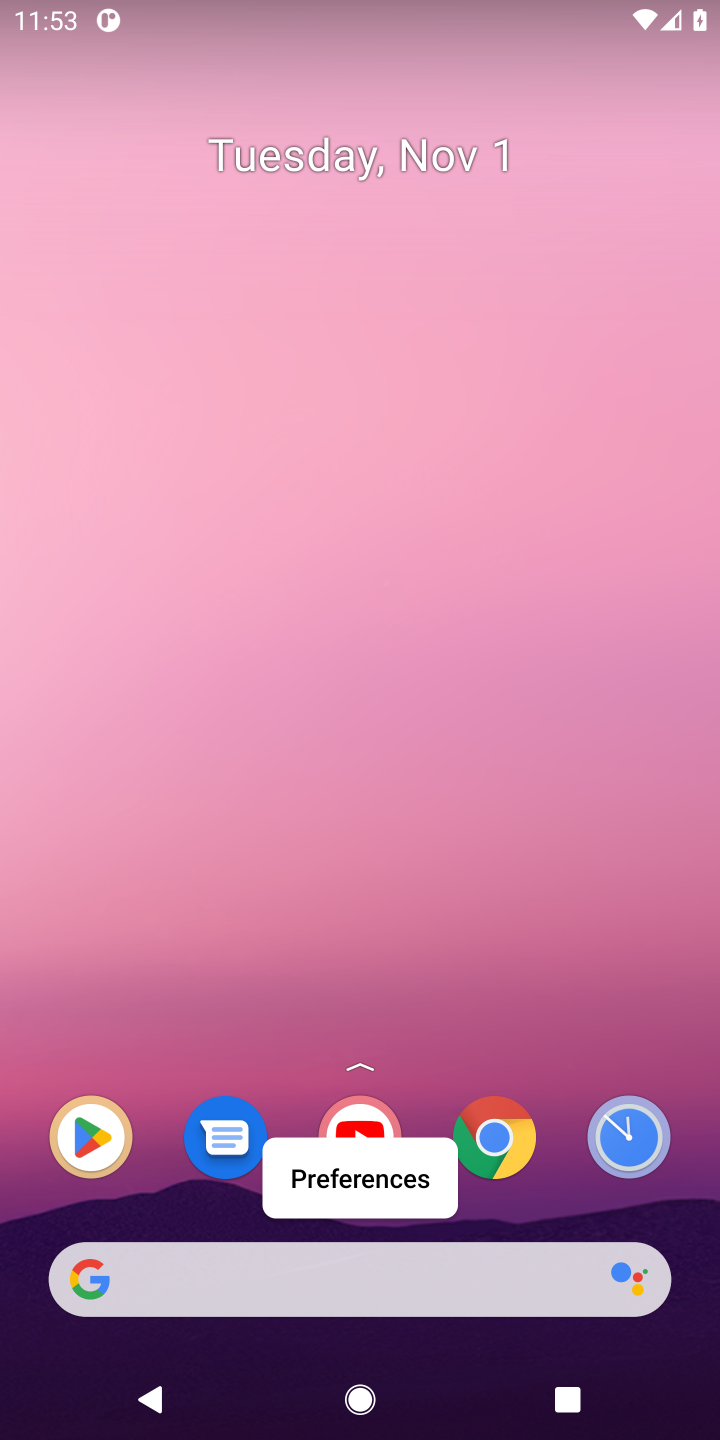
Step 29: click (400, 1272)
Your task to perform on an android device: Clear all items from cart on walmart.com. Search for "logitech g933" on walmart.com, select the first entry, and add it to the cart. Image 30: 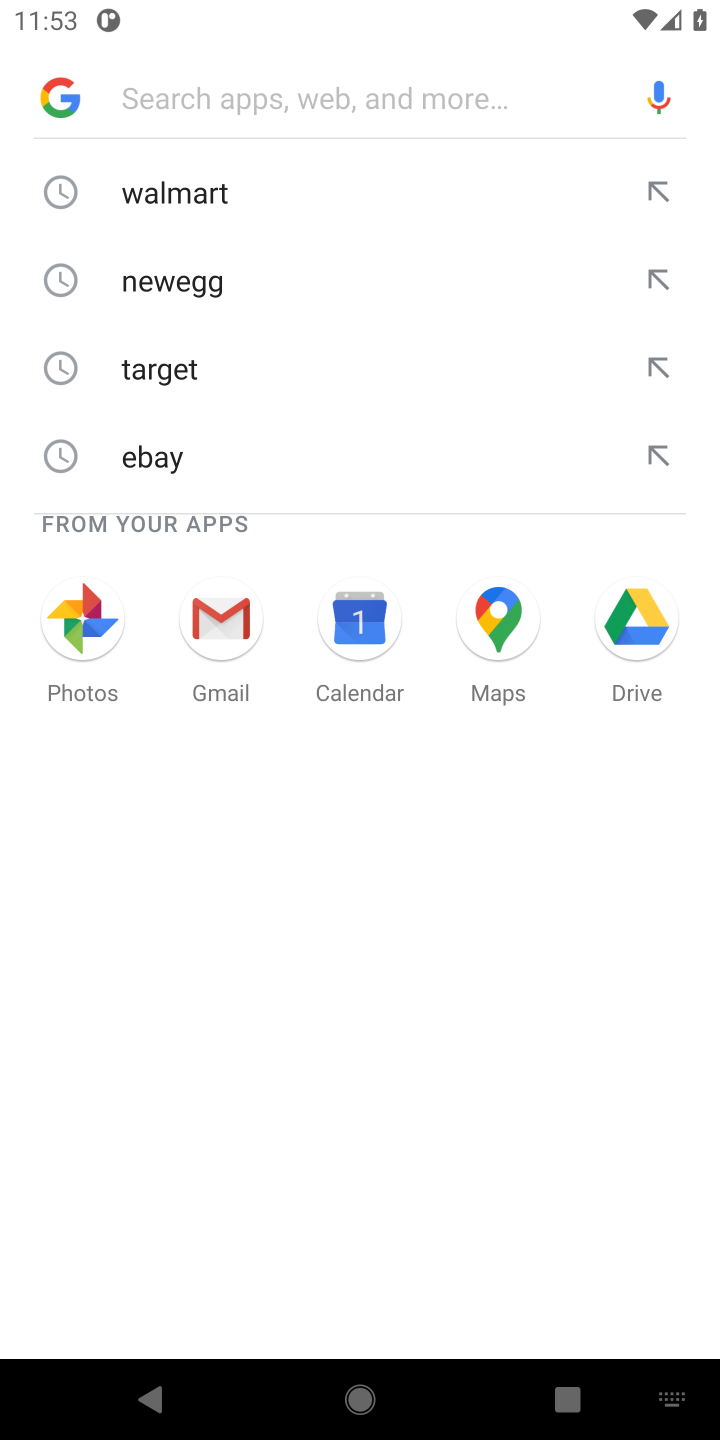
Step 30: task complete